Your task to perform on an android device: visit the assistant section in the google photos Image 0: 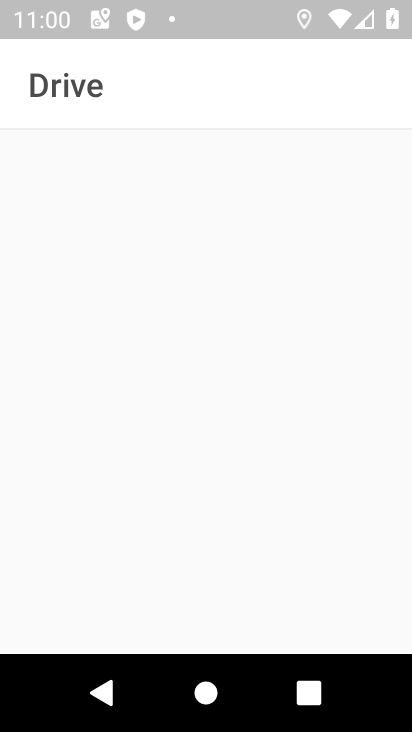
Step 0: press home button
Your task to perform on an android device: visit the assistant section in the google photos Image 1: 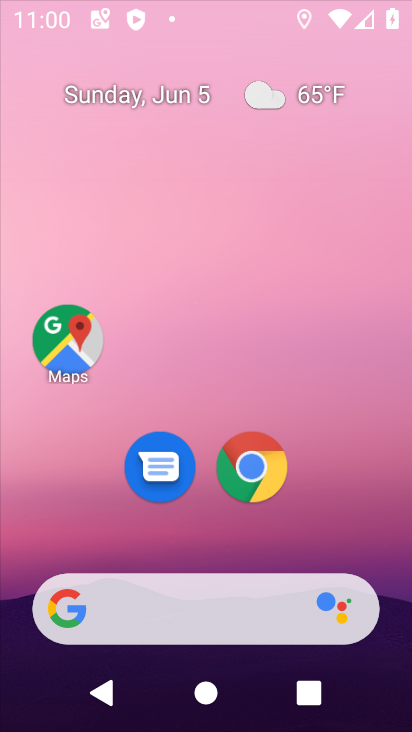
Step 1: drag from (220, 576) to (371, 22)
Your task to perform on an android device: visit the assistant section in the google photos Image 2: 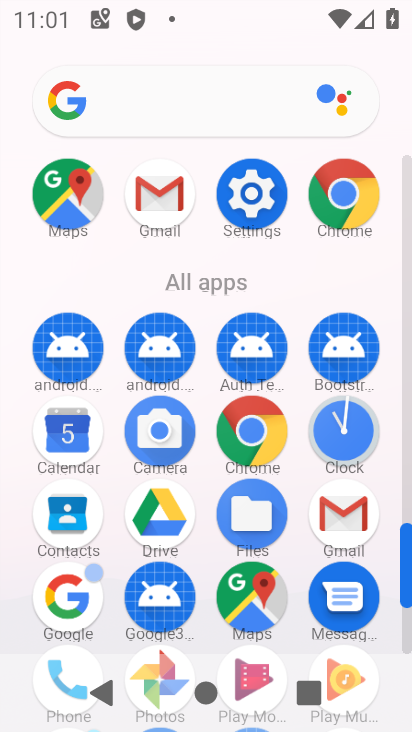
Step 2: drag from (215, 588) to (244, 180)
Your task to perform on an android device: visit the assistant section in the google photos Image 3: 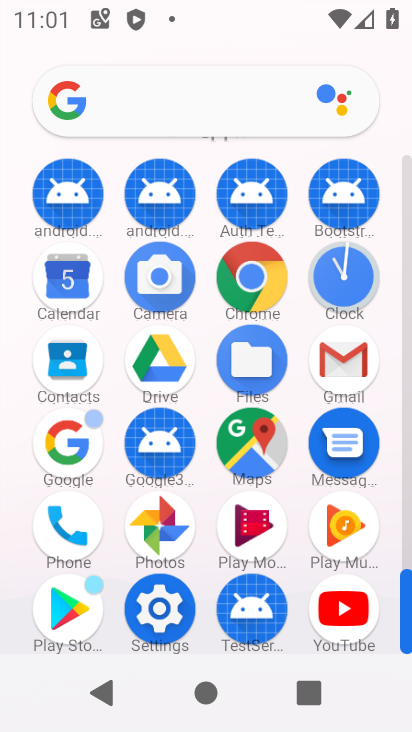
Step 3: click (164, 529)
Your task to perform on an android device: visit the assistant section in the google photos Image 4: 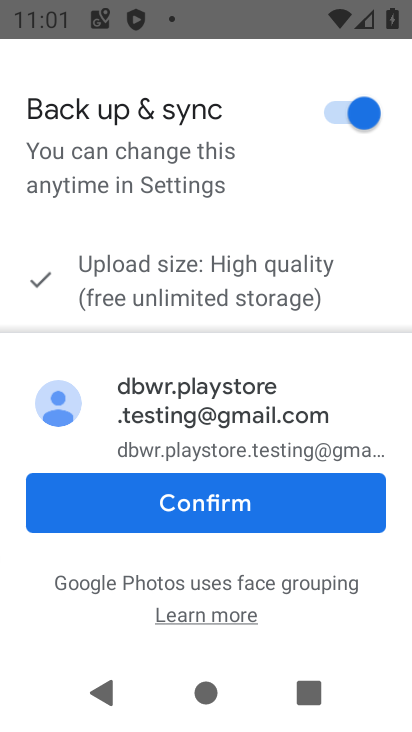
Step 4: click (276, 496)
Your task to perform on an android device: visit the assistant section in the google photos Image 5: 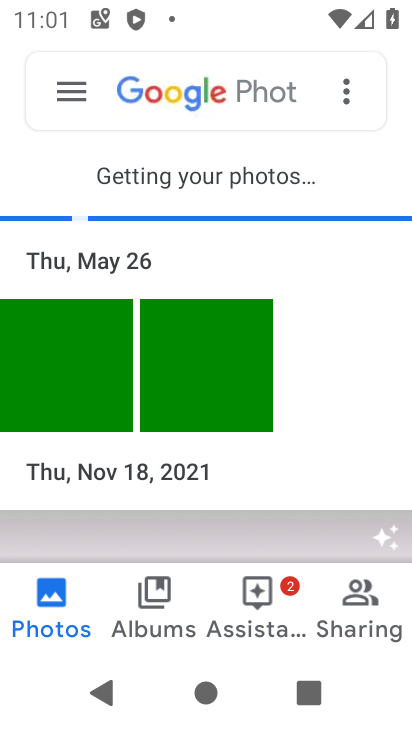
Step 5: click (257, 622)
Your task to perform on an android device: visit the assistant section in the google photos Image 6: 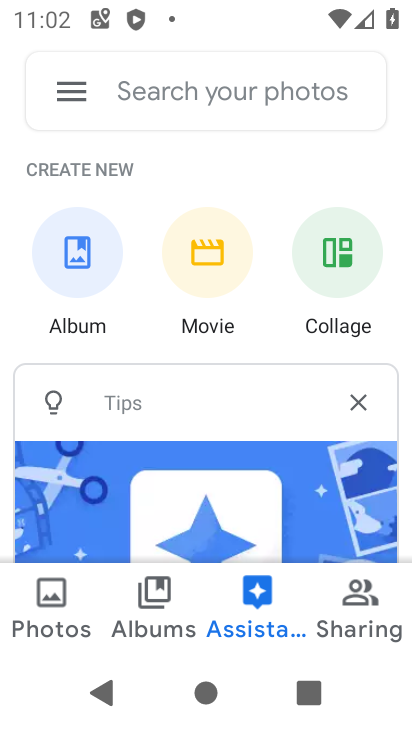
Step 6: task complete